Your task to perform on an android device: check google app version Image 0: 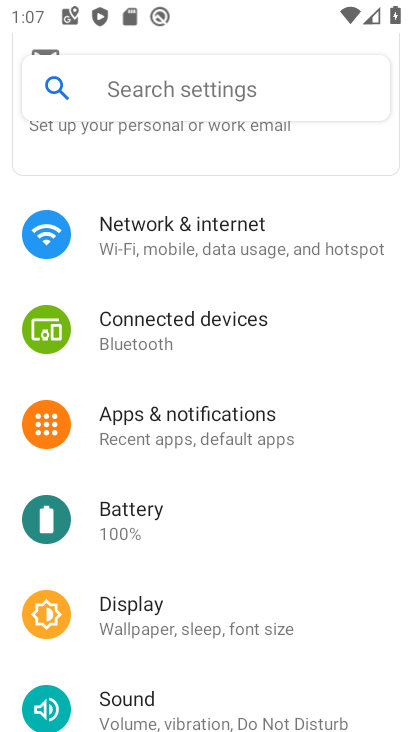
Step 0: press home button
Your task to perform on an android device: check google app version Image 1: 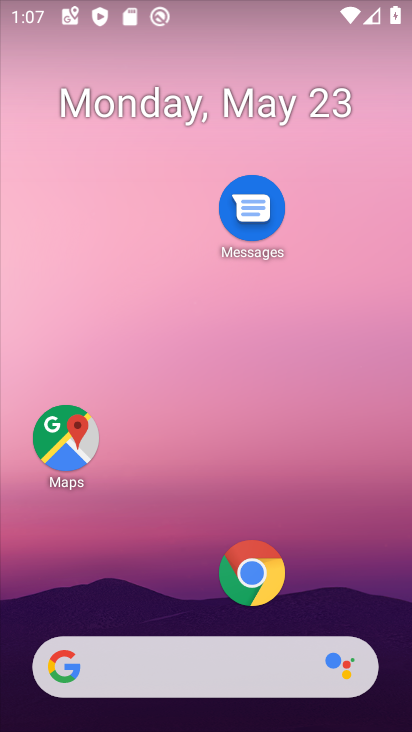
Step 1: drag from (170, 590) to (208, 55)
Your task to perform on an android device: check google app version Image 2: 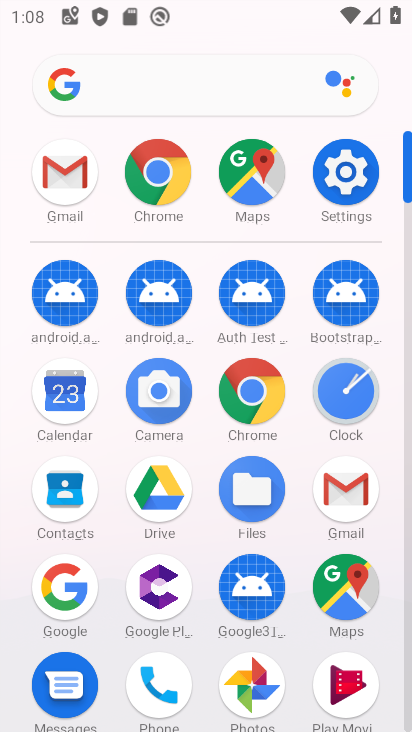
Step 2: click (150, 182)
Your task to perform on an android device: check google app version Image 3: 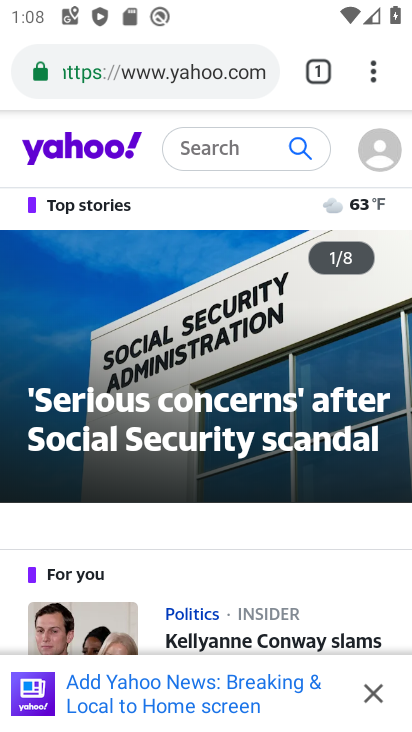
Step 3: click (368, 78)
Your task to perform on an android device: check google app version Image 4: 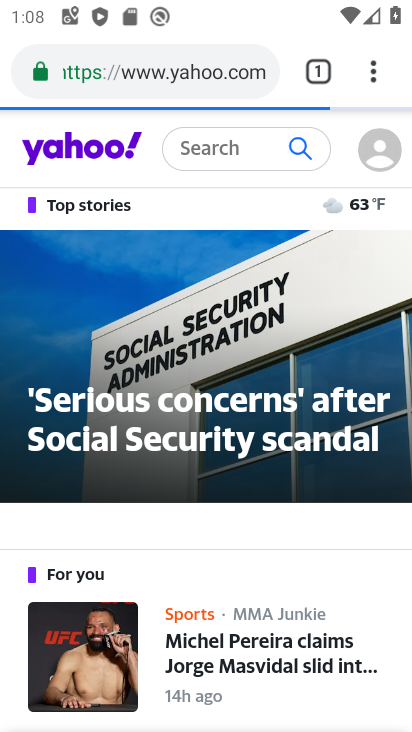
Step 4: click (375, 74)
Your task to perform on an android device: check google app version Image 5: 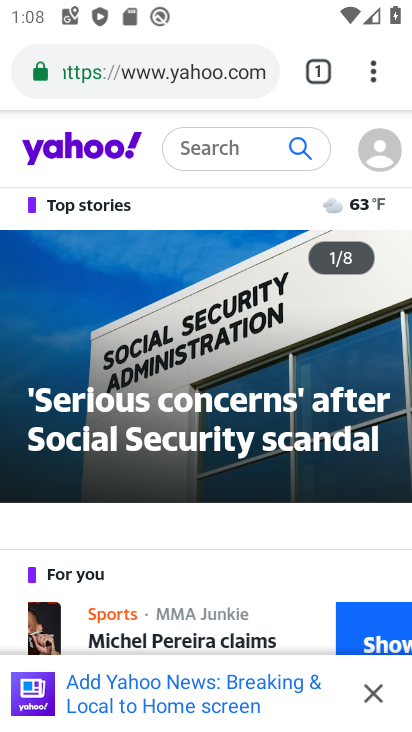
Step 5: click (375, 73)
Your task to perform on an android device: check google app version Image 6: 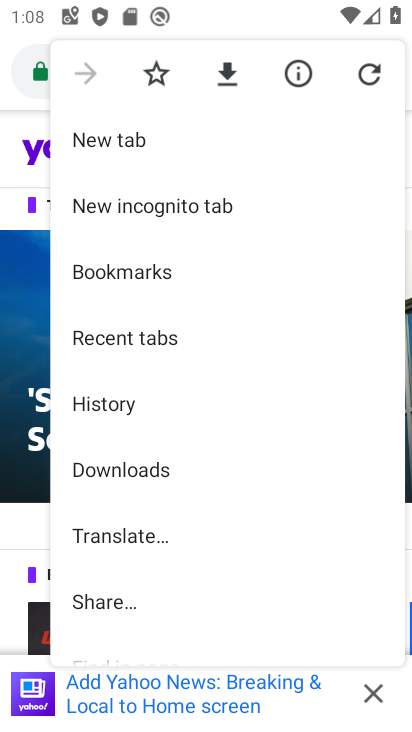
Step 6: drag from (277, 570) to (285, 212)
Your task to perform on an android device: check google app version Image 7: 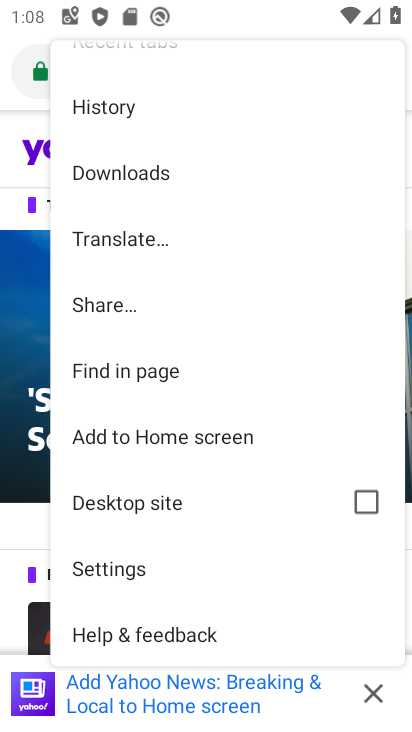
Step 7: drag from (194, 575) to (249, 210)
Your task to perform on an android device: check google app version Image 8: 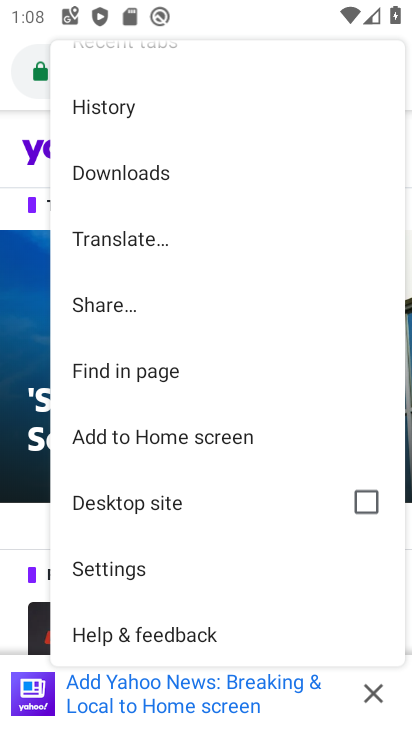
Step 8: click (194, 638)
Your task to perform on an android device: check google app version Image 9: 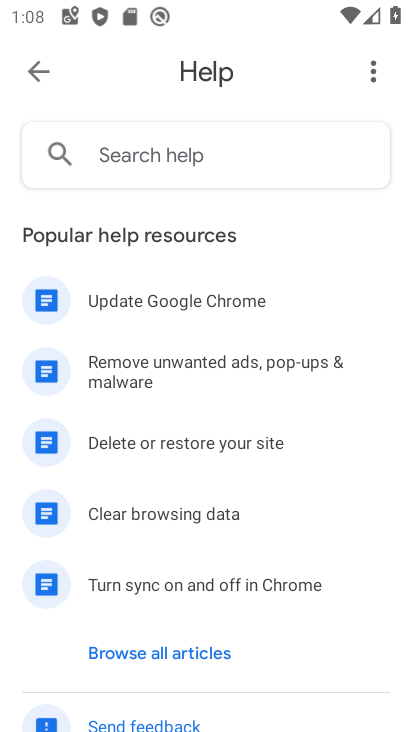
Step 9: click (371, 82)
Your task to perform on an android device: check google app version Image 10: 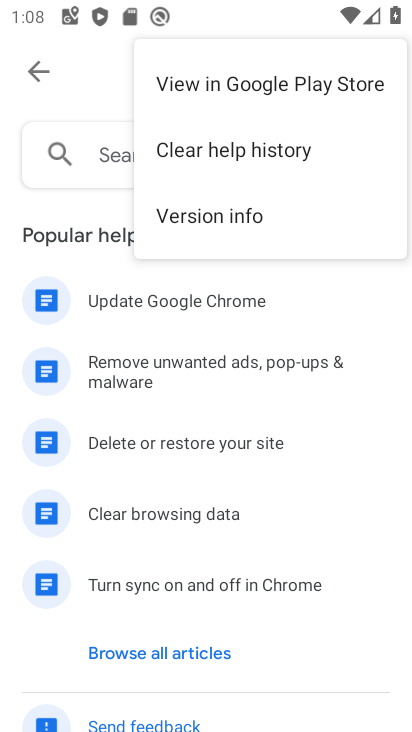
Step 10: click (235, 207)
Your task to perform on an android device: check google app version Image 11: 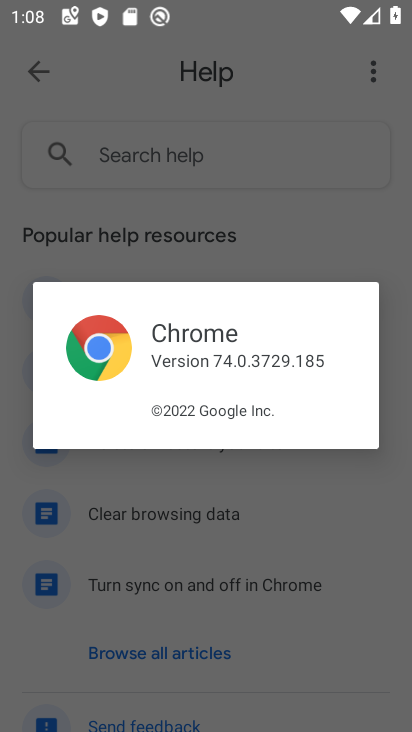
Step 11: task complete